Your task to perform on an android device: change notifications settings Image 0: 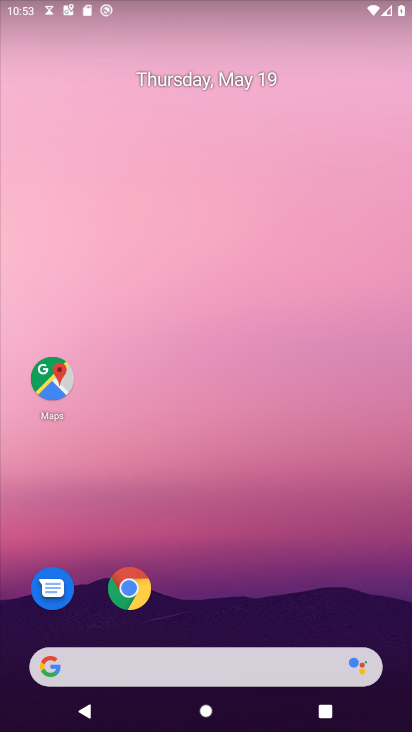
Step 0: press home button
Your task to perform on an android device: change notifications settings Image 1: 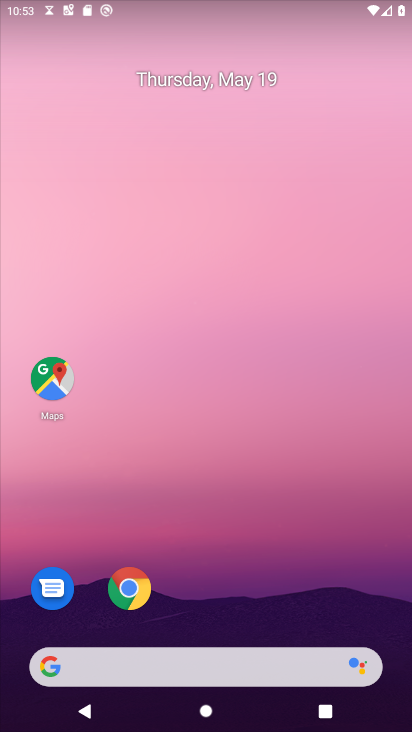
Step 1: drag from (257, 556) to (218, 124)
Your task to perform on an android device: change notifications settings Image 2: 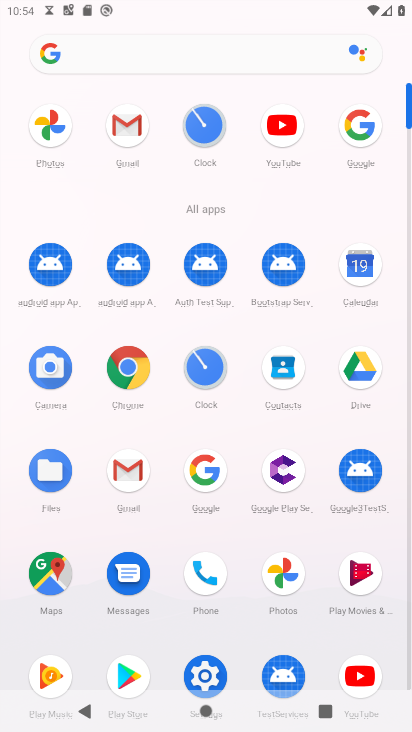
Step 2: click (206, 674)
Your task to perform on an android device: change notifications settings Image 3: 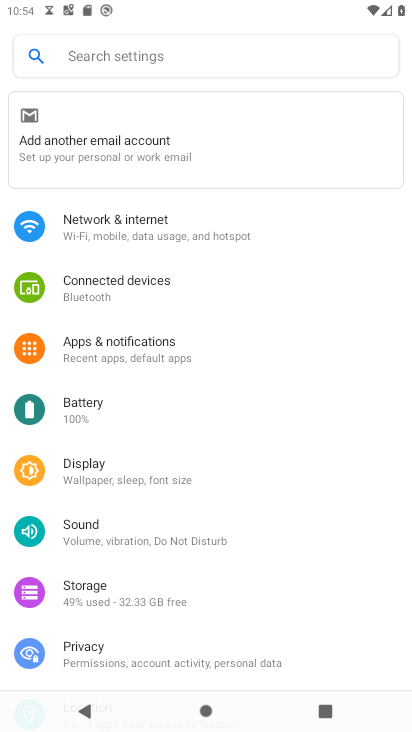
Step 3: click (174, 346)
Your task to perform on an android device: change notifications settings Image 4: 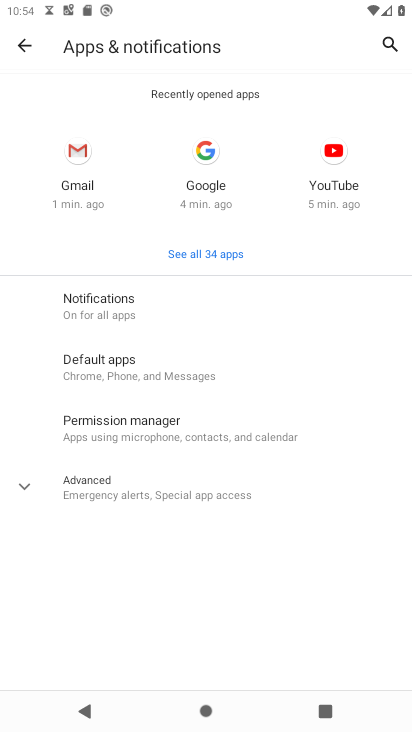
Step 4: click (176, 319)
Your task to perform on an android device: change notifications settings Image 5: 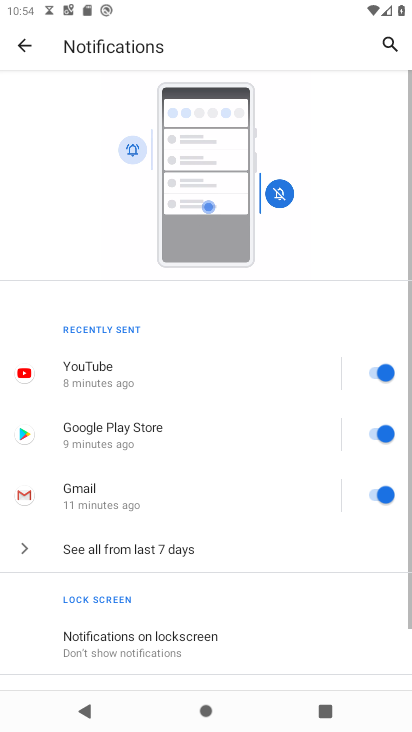
Step 5: click (383, 370)
Your task to perform on an android device: change notifications settings Image 6: 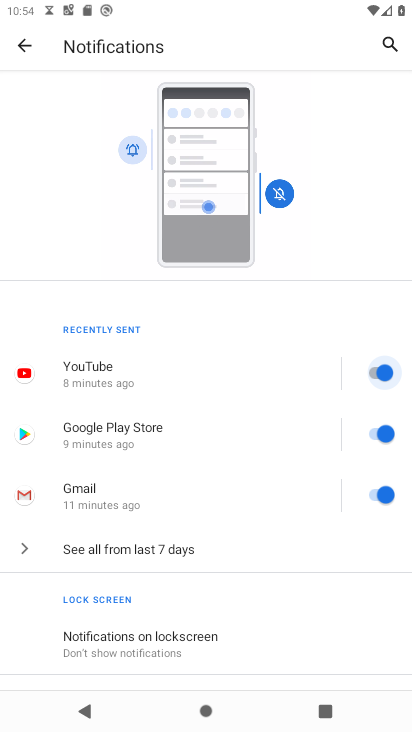
Step 6: click (384, 436)
Your task to perform on an android device: change notifications settings Image 7: 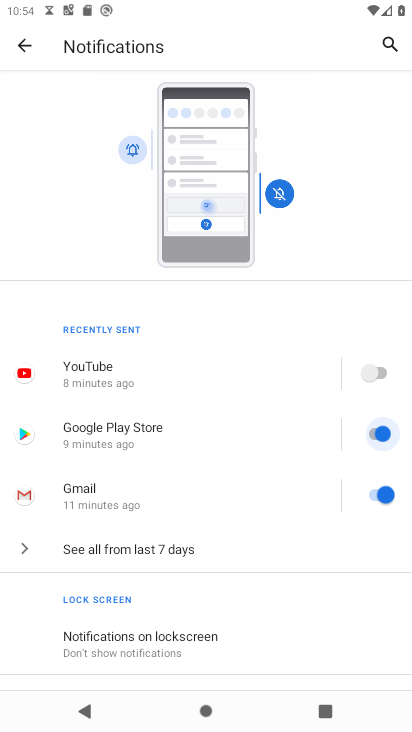
Step 7: click (381, 498)
Your task to perform on an android device: change notifications settings Image 8: 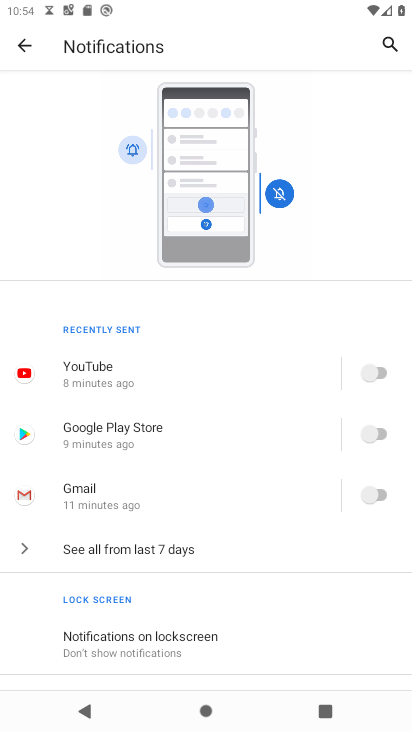
Step 8: task complete